Your task to perform on an android device: Open the calendar and show me this week's events? Image 0: 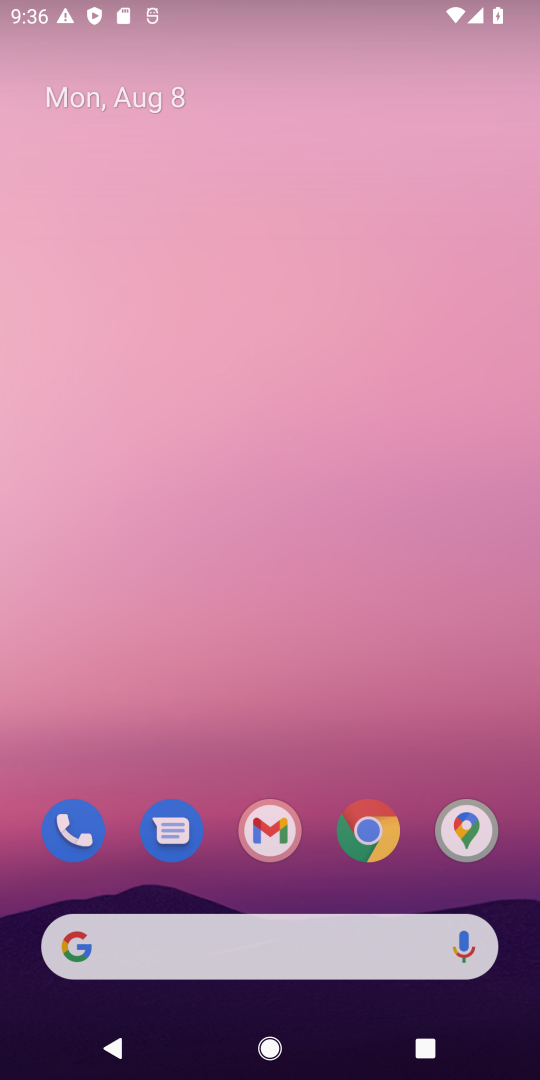
Step 0: press home button
Your task to perform on an android device: Open the calendar and show me this week's events? Image 1: 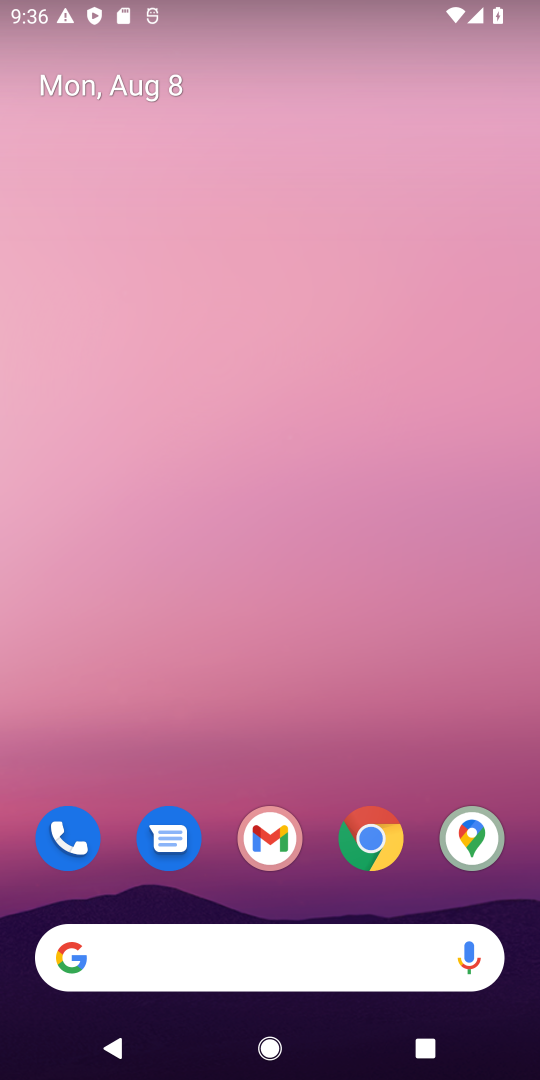
Step 1: drag from (308, 868) to (357, 117)
Your task to perform on an android device: Open the calendar and show me this week's events? Image 2: 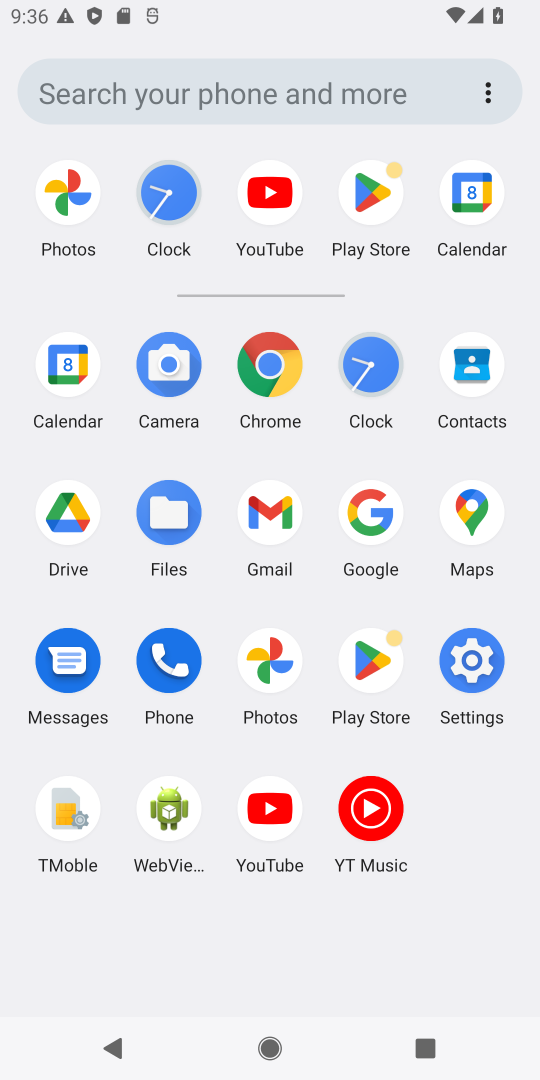
Step 2: click (469, 195)
Your task to perform on an android device: Open the calendar and show me this week's events? Image 3: 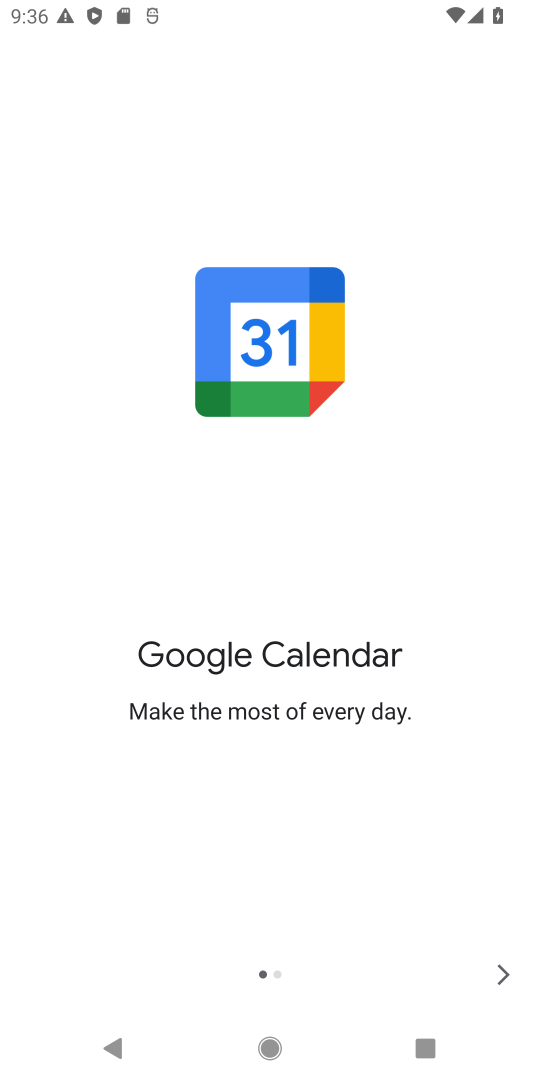
Step 3: click (498, 970)
Your task to perform on an android device: Open the calendar and show me this week's events? Image 4: 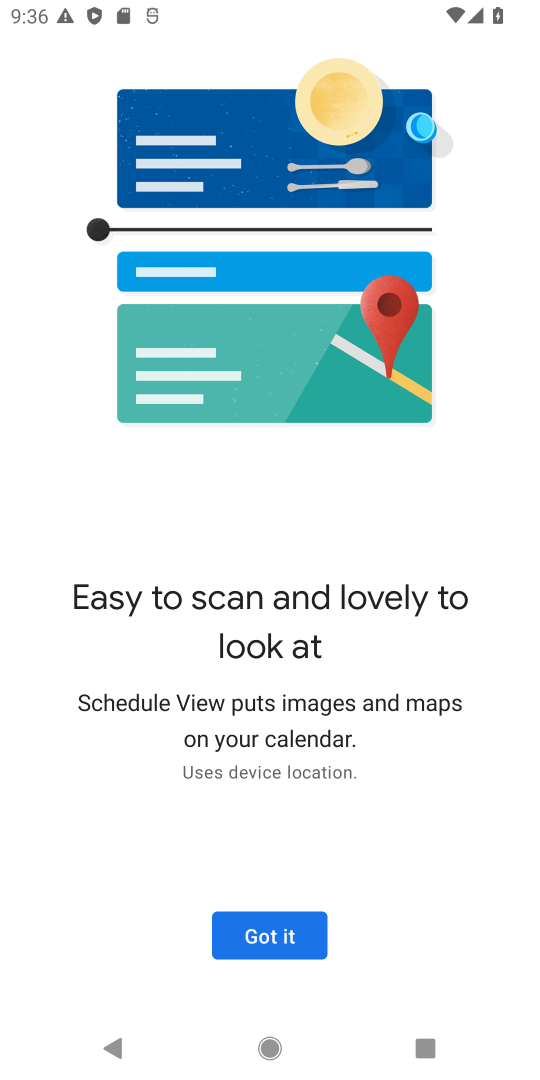
Step 4: click (253, 942)
Your task to perform on an android device: Open the calendar and show me this week's events? Image 5: 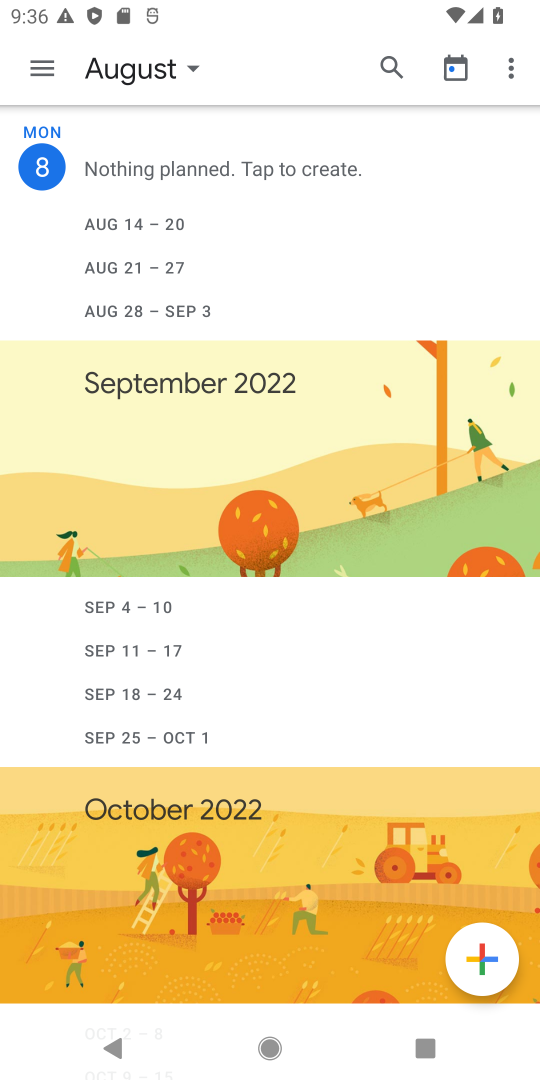
Step 5: click (32, 74)
Your task to perform on an android device: Open the calendar and show me this week's events? Image 6: 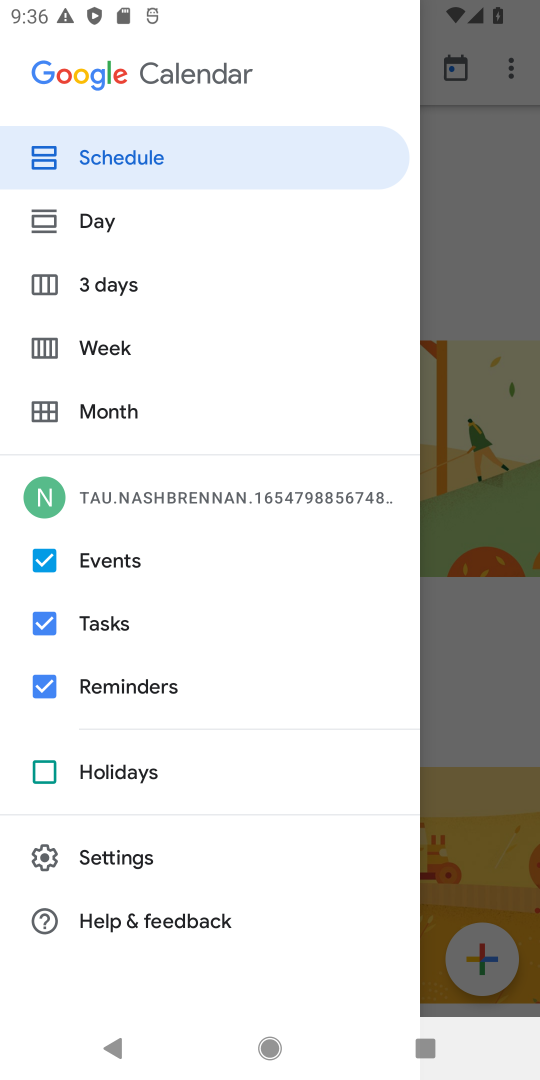
Step 6: click (111, 358)
Your task to perform on an android device: Open the calendar and show me this week's events? Image 7: 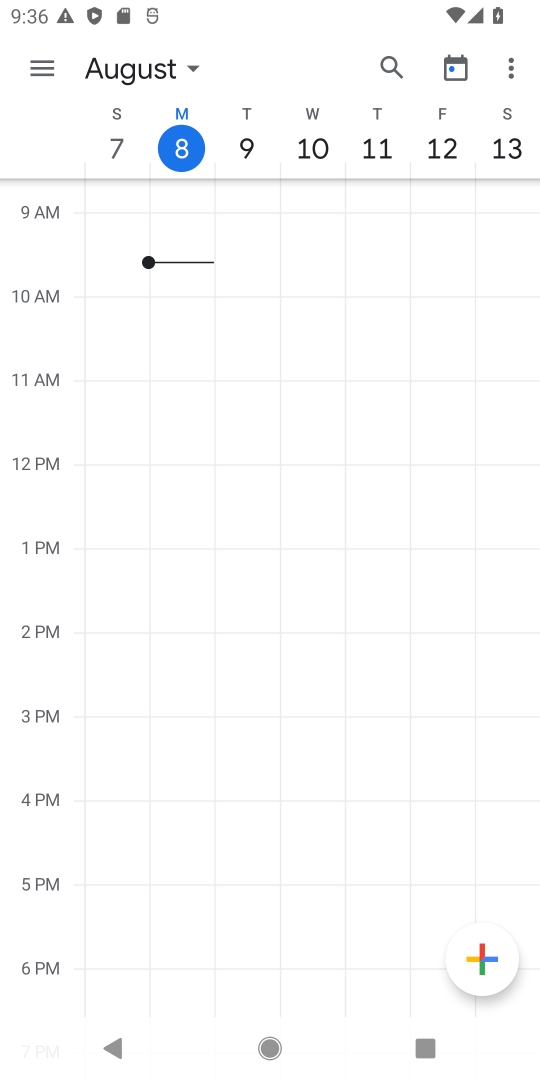
Step 7: task complete